Your task to perform on an android device: Go to Google Image 0: 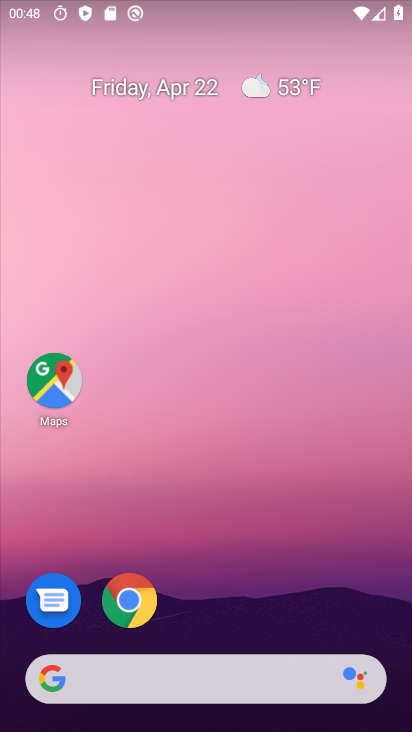
Step 0: click (205, 674)
Your task to perform on an android device: Go to Google Image 1: 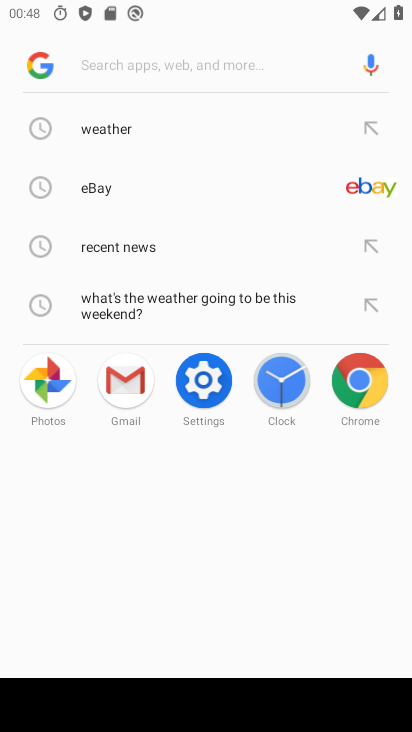
Step 1: type "google.com"
Your task to perform on an android device: Go to Google Image 2: 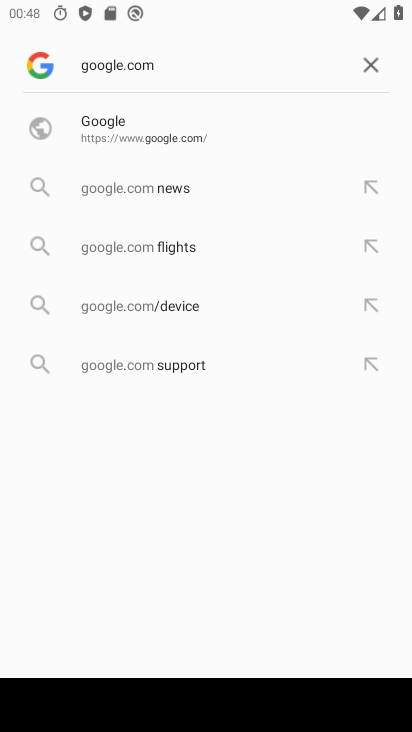
Step 2: click (175, 124)
Your task to perform on an android device: Go to Google Image 3: 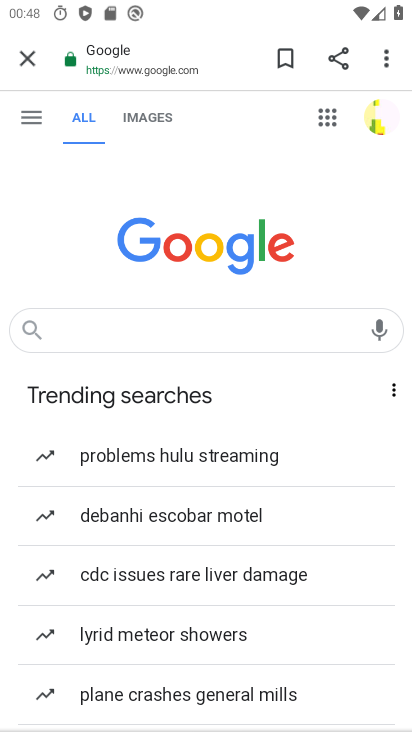
Step 3: task complete